Your task to perform on an android device: toggle data saver in the chrome app Image 0: 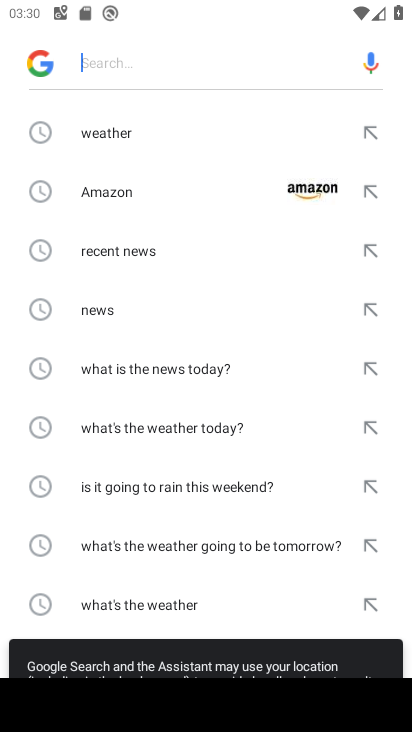
Step 0: press home button
Your task to perform on an android device: toggle data saver in the chrome app Image 1: 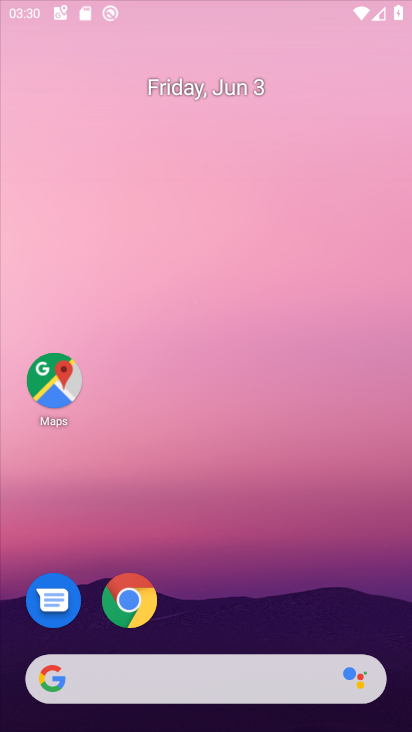
Step 1: drag from (266, 437) to (249, 223)
Your task to perform on an android device: toggle data saver in the chrome app Image 2: 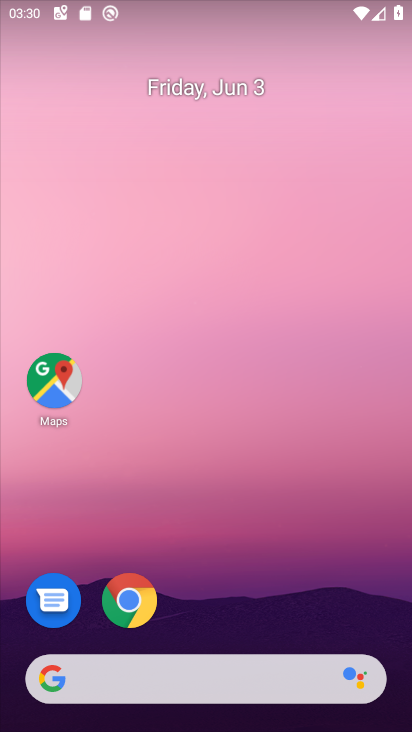
Step 2: click (135, 599)
Your task to perform on an android device: toggle data saver in the chrome app Image 3: 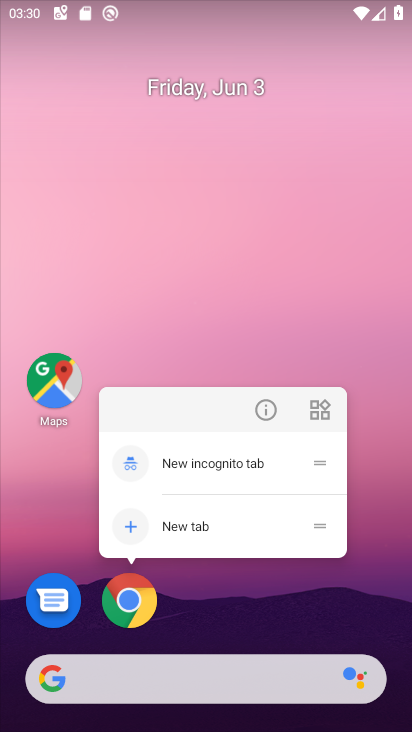
Step 3: click (335, 631)
Your task to perform on an android device: toggle data saver in the chrome app Image 4: 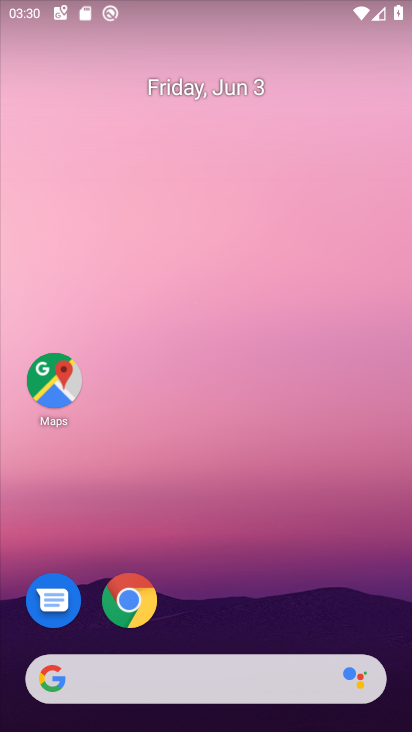
Step 4: drag from (333, 626) to (296, 106)
Your task to perform on an android device: toggle data saver in the chrome app Image 5: 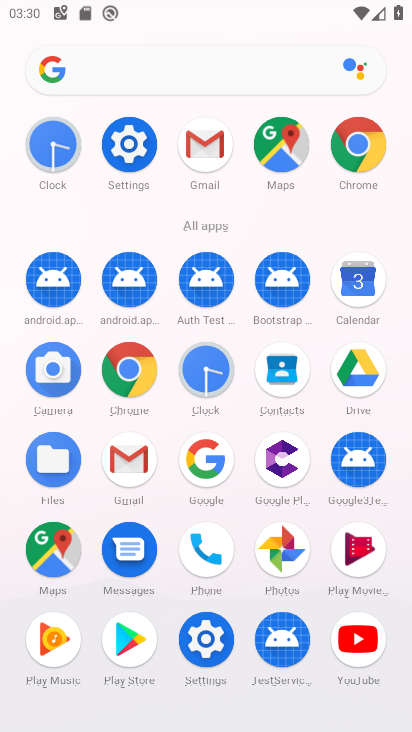
Step 5: click (126, 368)
Your task to perform on an android device: toggle data saver in the chrome app Image 6: 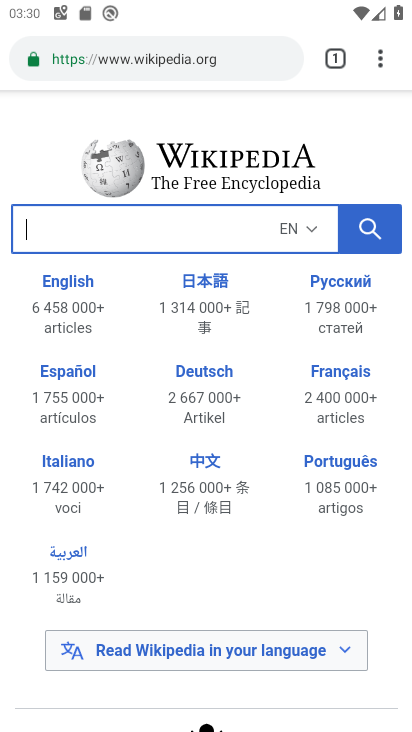
Step 6: click (384, 58)
Your task to perform on an android device: toggle data saver in the chrome app Image 7: 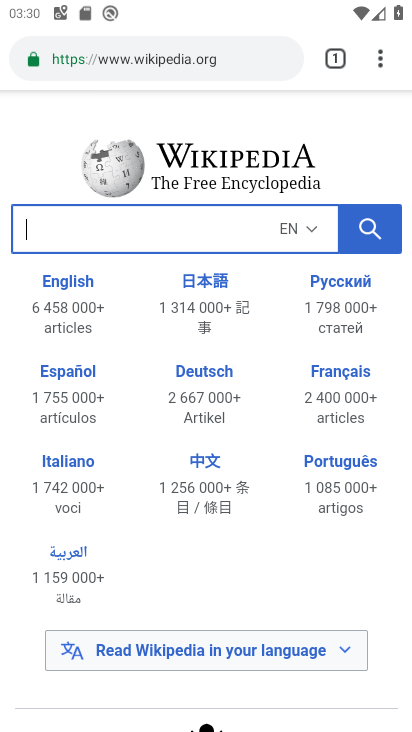
Step 7: drag from (385, 51) to (225, 624)
Your task to perform on an android device: toggle data saver in the chrome app Image 8: 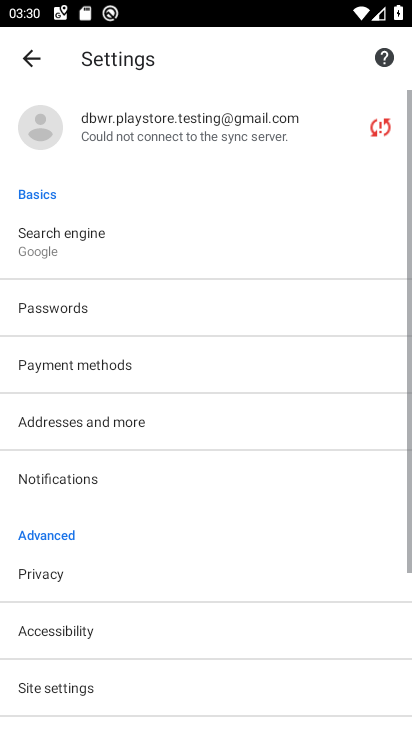
Step 8: drag from (188, 578) to (168, 104)
Your task to perform on an android device: toggle data saver in the chrome app Image 9: 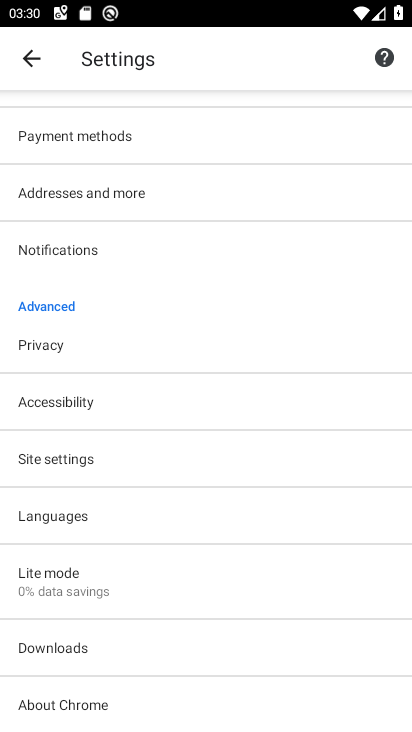
Step 9: click (125, 587)
Your task to perform on an android device: toggle data saver in the chrome app Image 10: 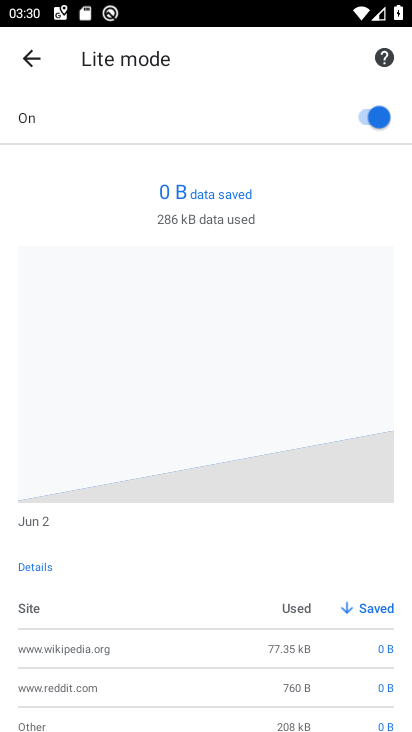
Step 10: click (354, 111)
Your task to perform on an android device: toggle data saver in the chrome app Image 11: 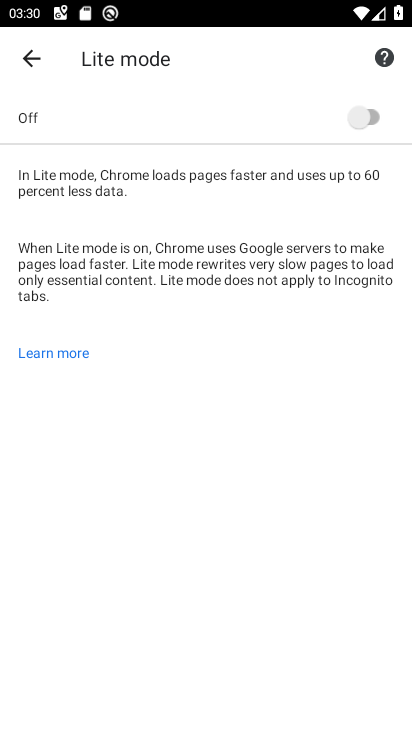
Step 11: task complete